Your task to perform on an android device: change notifications settings Image 0: 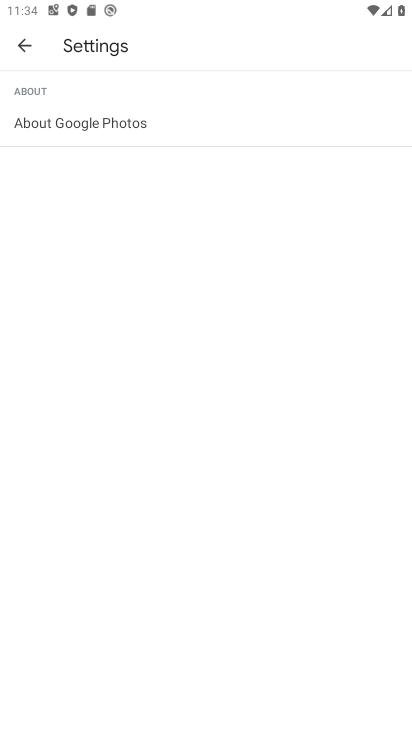
Step 0: press home button
Your task to perform on an android device: change notifications settings Image 1: 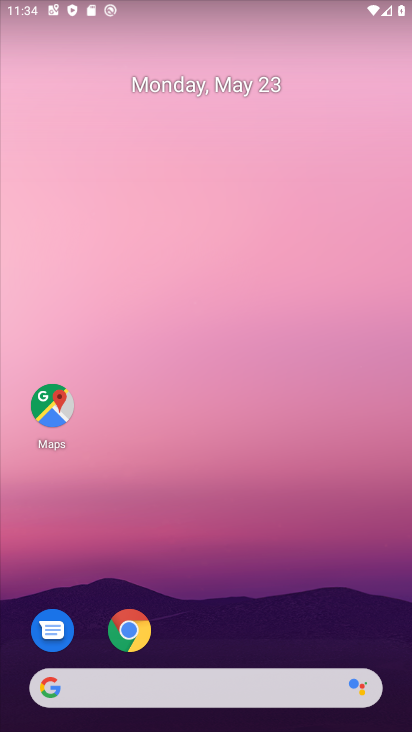
Step 1: drag from (183, 632) to (257, 58)
Your task to perform on an android device: change notifications settings Image 2: 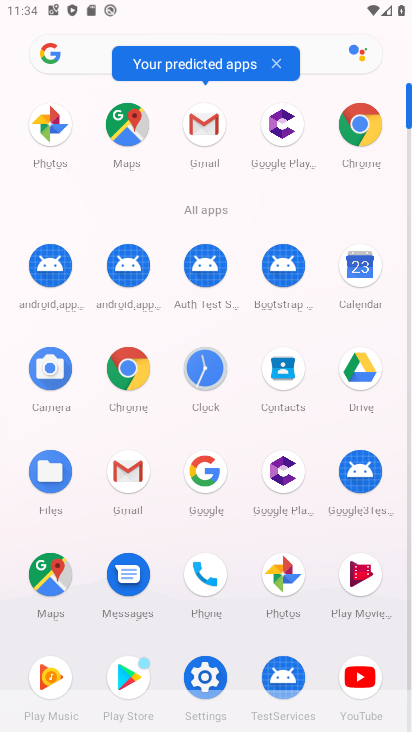
Step 2: click (214, 673)
Your task to perform on an android device: change notifications settings Image 3: 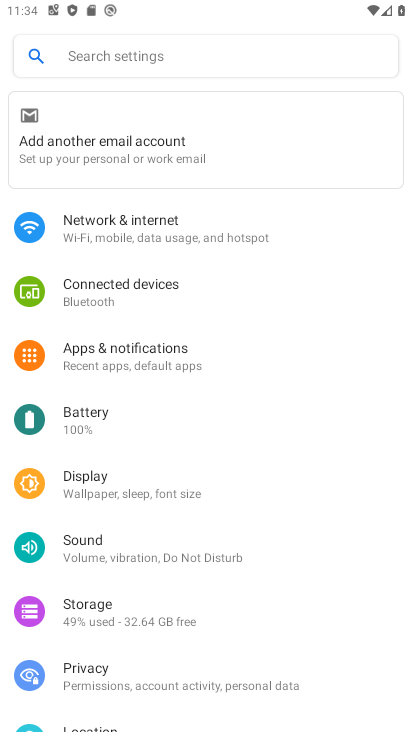
Step 3: click (176, 358)
Your task to perform on an android device: change notifications settings Image 4: 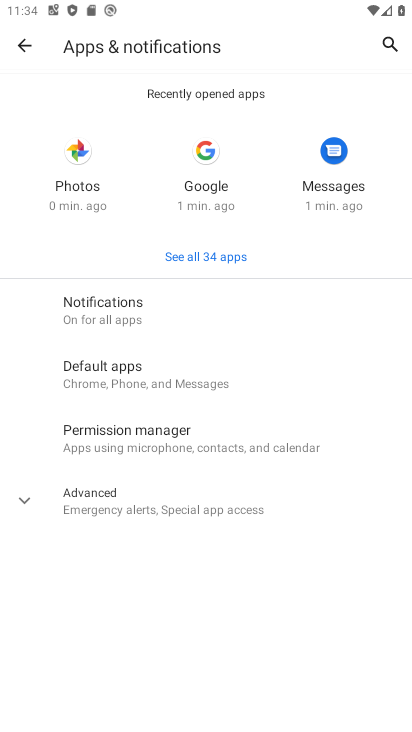
Step 4: click (127, 316)
Your task to perform on an android device: change notifications settings Image 5: 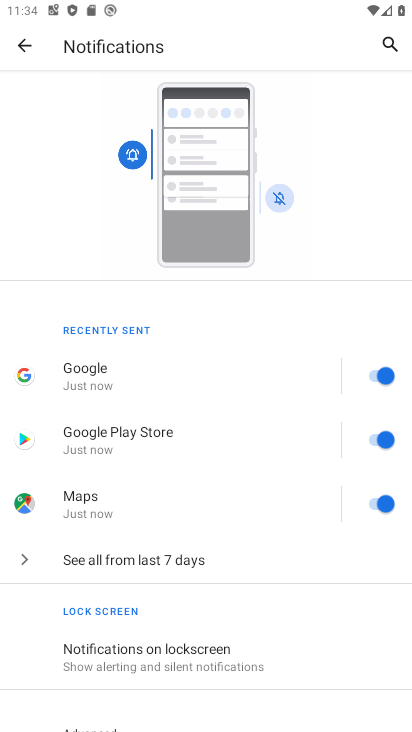
Step 5: drag from (150, 478) to (170, 332)
Your task to perform on an android device: change notifications settings Image 6: 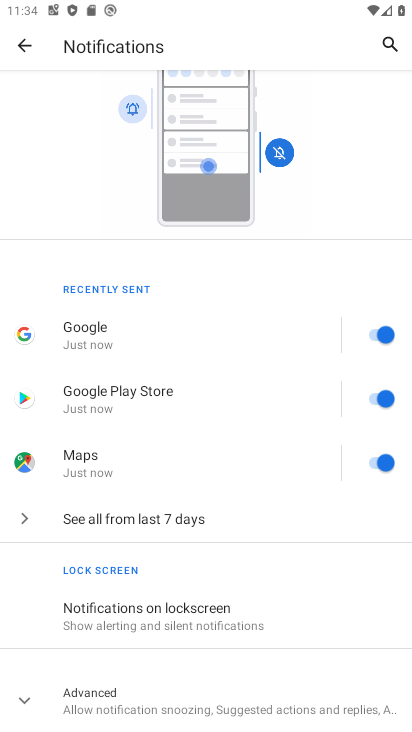
Step 6: click (167, 522)
Your task to perform on an android device: change notifications settings Image 7: 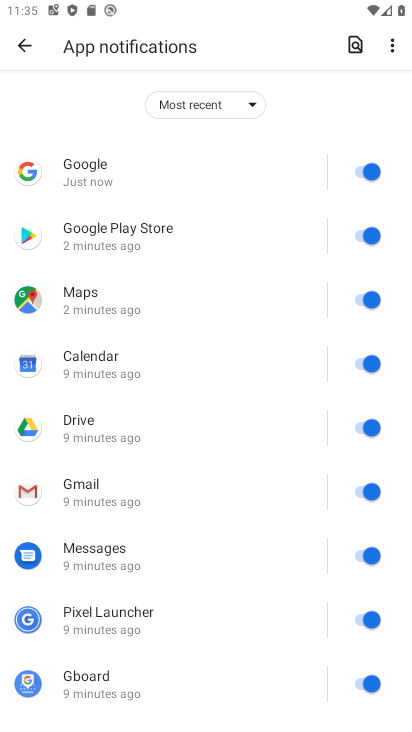
Step 7: click (366, 175)
Your task to perform on an android device: change notifications settings Image 8: 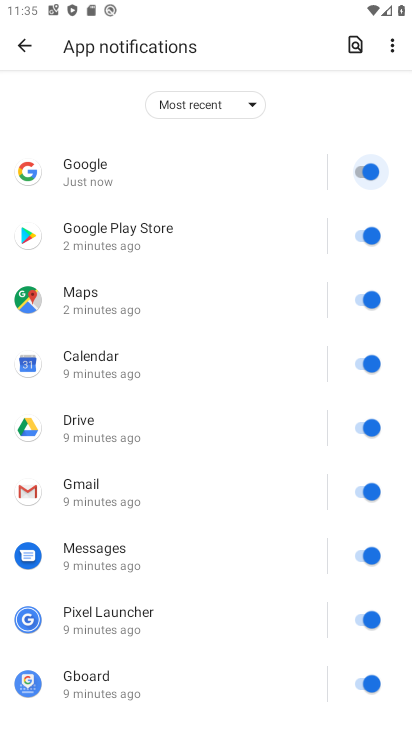
Step 8: click (355, 230)
Your task to perform on an android device: change notifications settings Image 9: 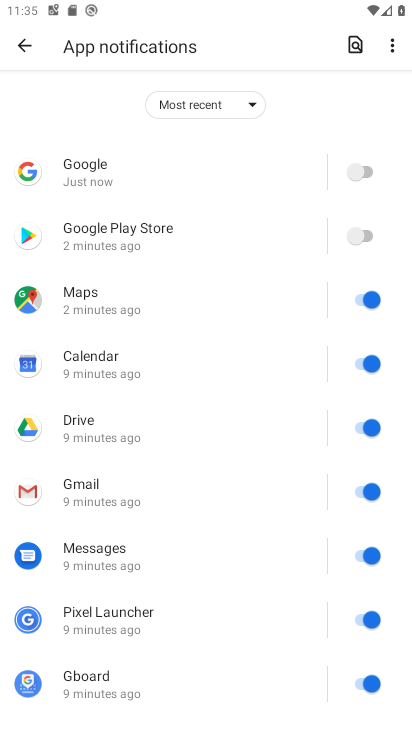
Step 9: click (364, 363)
Your task to perform on an android device: change notifications settings Image 10: 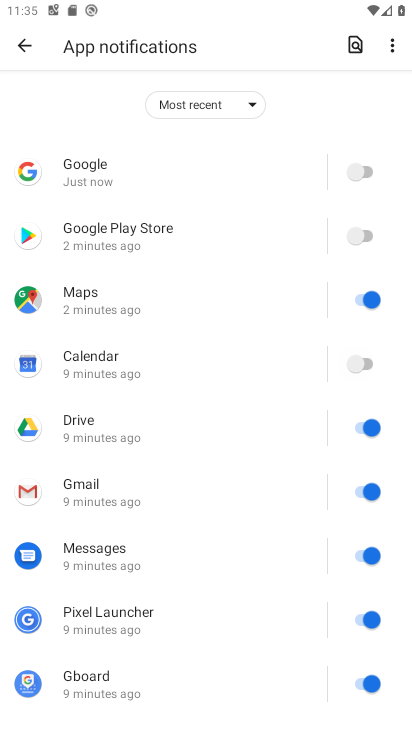
Step 10: click (355, 417)
Your task to perform on an android device: change notifications settings Image 11: 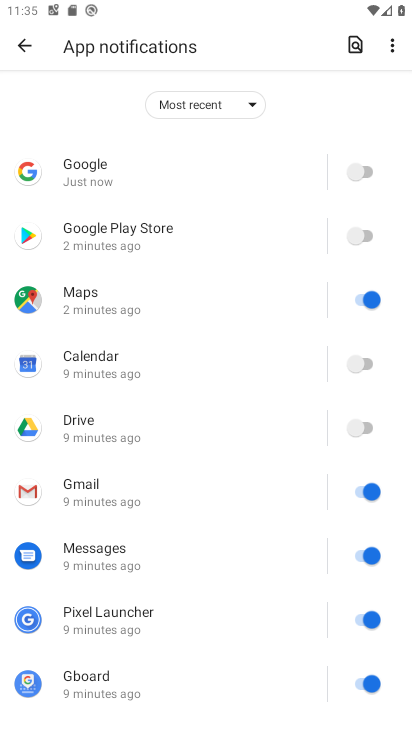
Step 11: click (357, 296)
Your task to perform on an android device: change notifications settings Image 12: 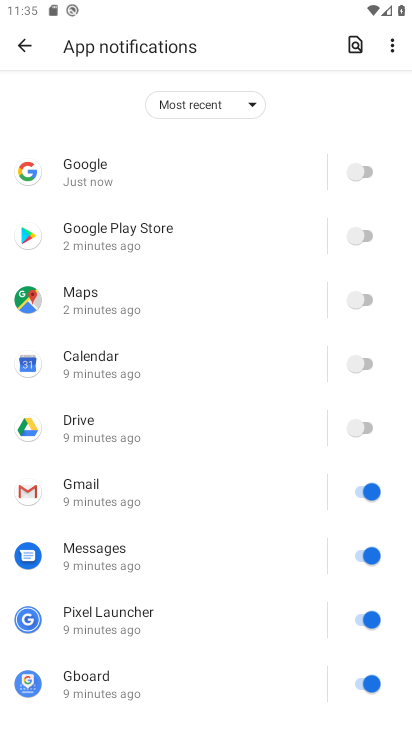
Step 12: click (364, 499)
Your task to perform on an android device: change notifications settings Image 13: 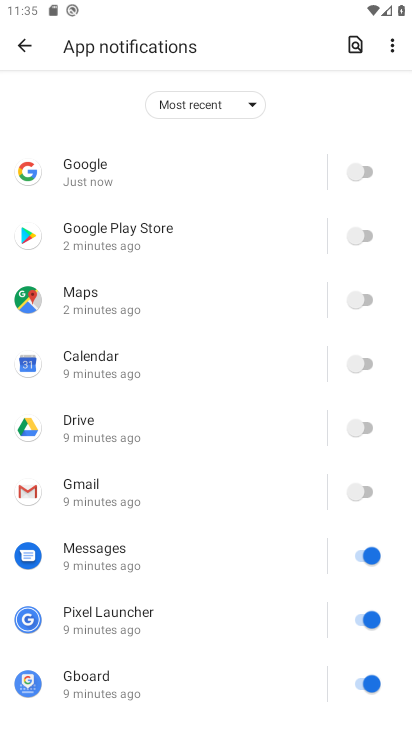
Step 13: click (364, 563)
Your task to perform on an android device: change notifications settings Image 14: 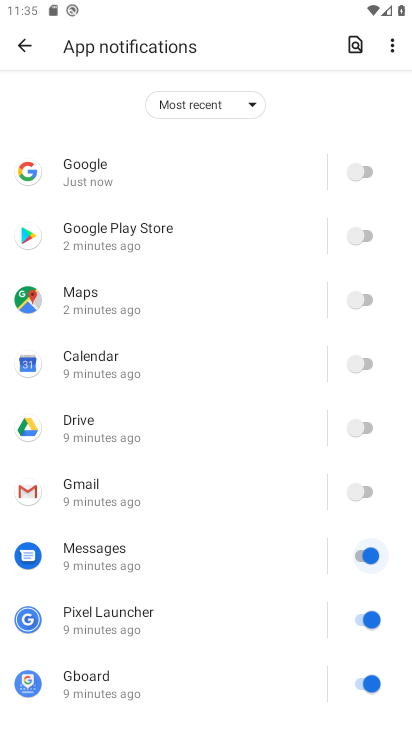
Step 14: click (362, 605)
Your task to perform on an android device: change notifications settings Image 15: 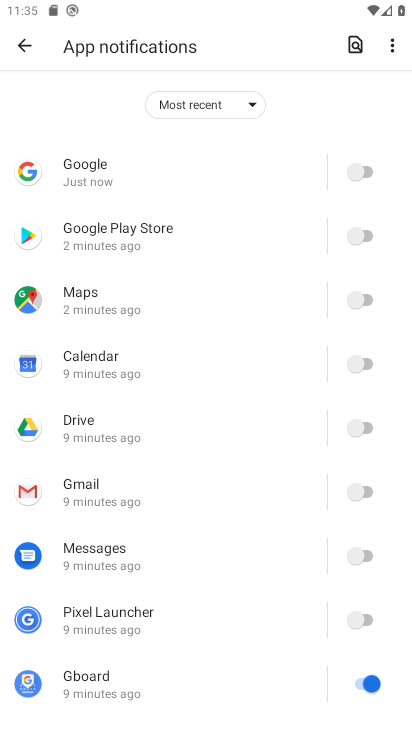
Step 15: click (364, 681)
Your task to perform on an android device: change notifications settings Image 16: 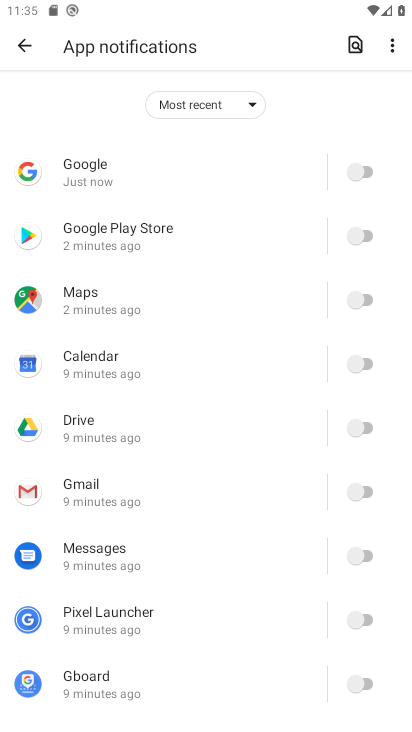
Step 16: task complete